Your task to perform on an android device: Open Yahoo.com Image 0: 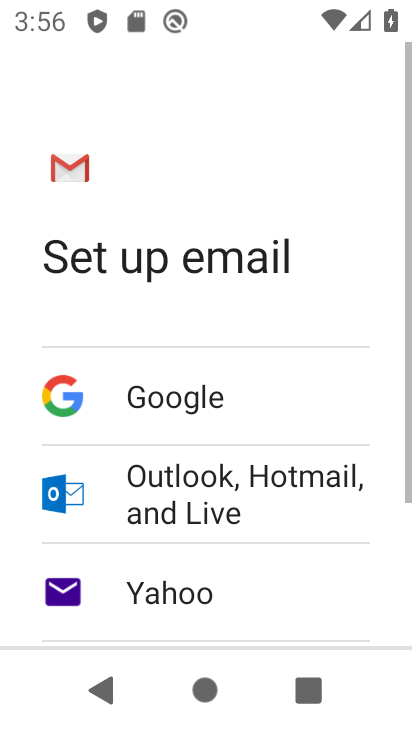
Step 0: press home button
Your task to perform on an android device: Open Yahoo.com Image 1: 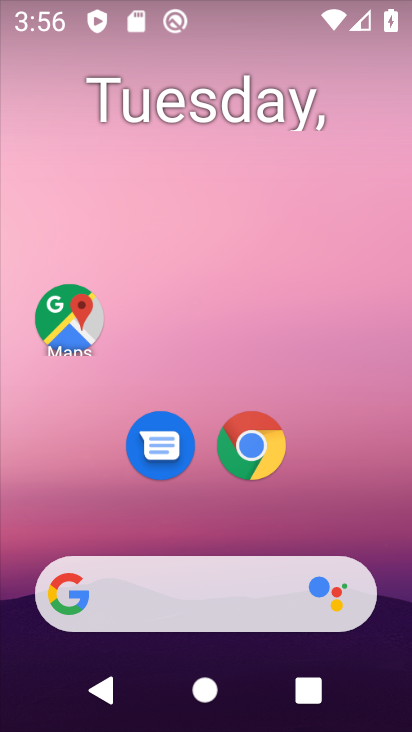
Step 1: click (261, 441)
Your task to perform on an android device: Open Yahoo.com Image 2: 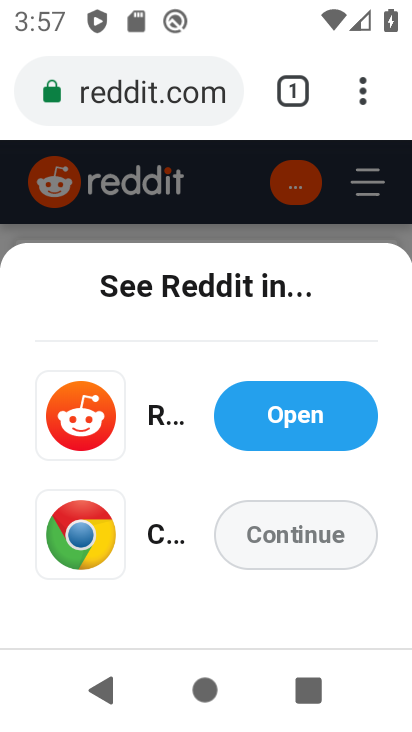
Step 2: click (150, 79)
Your task to perform on an android device: Open Yahoo.com Image 3: 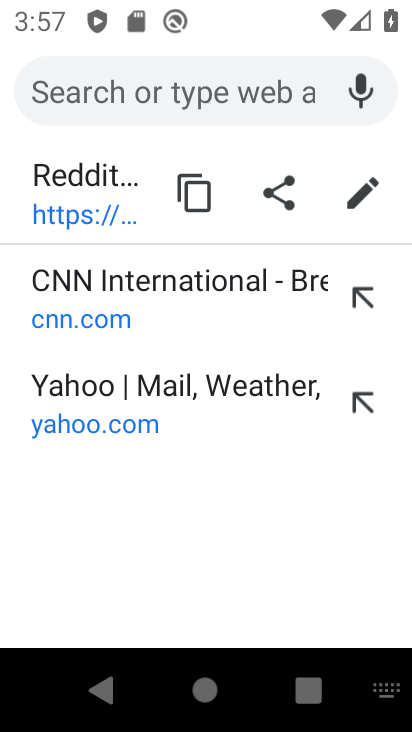
Step 3: click (233, 380)
Your task to perform on an android device: Open Yahoo.com Image 4: 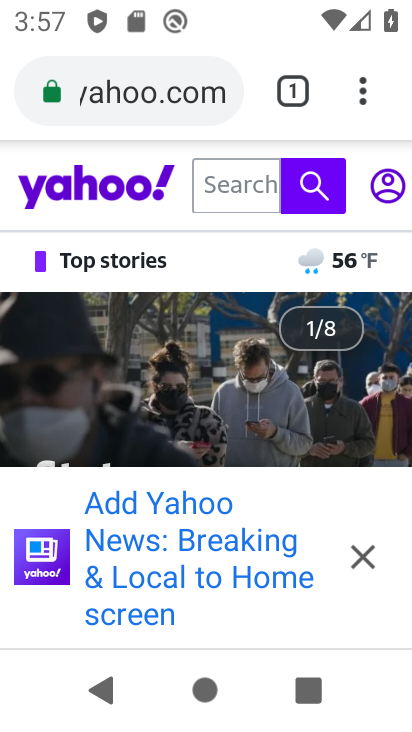
Step 4: task complete